Your task to perform on an android device: empty trash in the gmail app Image 0: 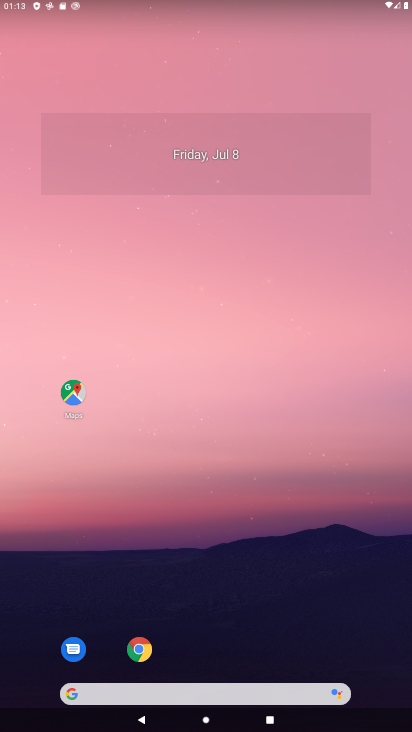
Step 0: drag from (307, 575) to (297, 125)
Your task to perform on an android device: empty trash in the gmail app Image 1: 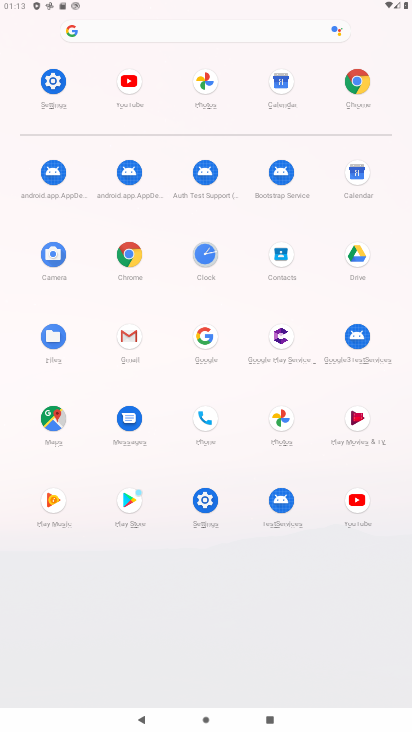
Step 1: click (130, 334)
Your task to perform on an android device: empty trash in the gmail app Image 2: 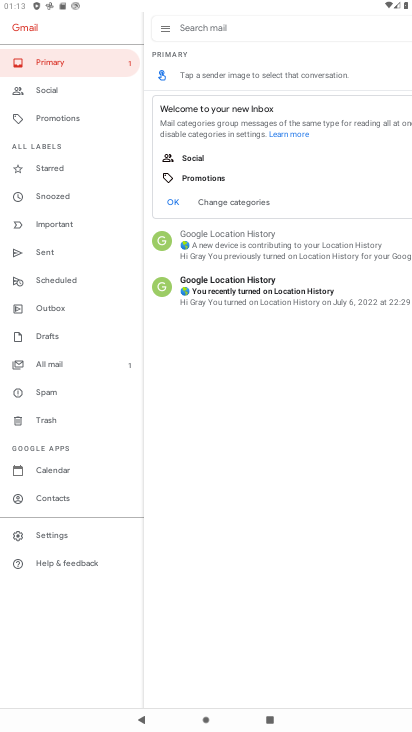
Step 2: click (39, 417)
Your task to perform on an android device: empty trash in the gmail app Image 3: 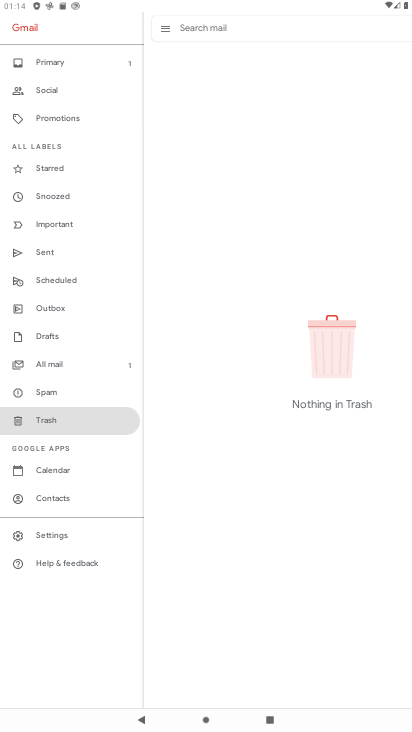
Step 3: task complete